Your task to perform on an android device: Do I have any events tomorrow? Image 0: 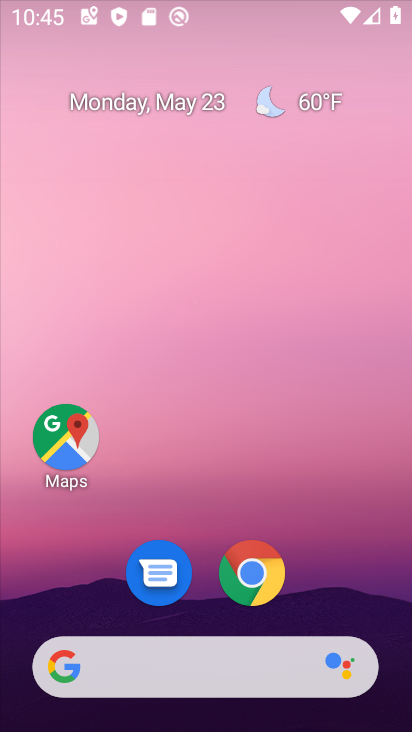
Step 0: drag from (340, 501) to (240, 17)
Your task to perform on an android device: Do I have any events tomorrow? Image 1: 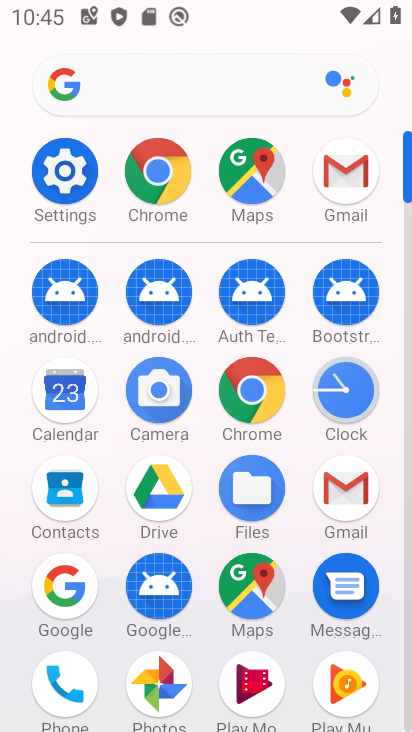
Step 1: drag from (34, 508) to (40, 155)
Your task to perform on an android device: Do I have any events tomorrow? Image 2: 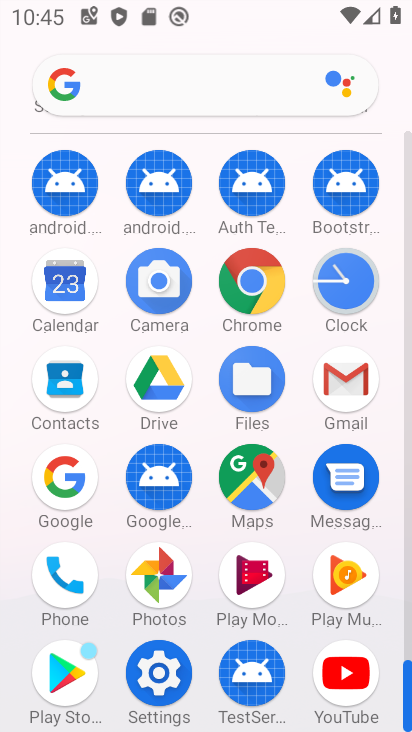
Step 2: drag from (32, 507) to (27, 302)
Your task to perform on an android device: Do I have any events tomorrow? Image 3: 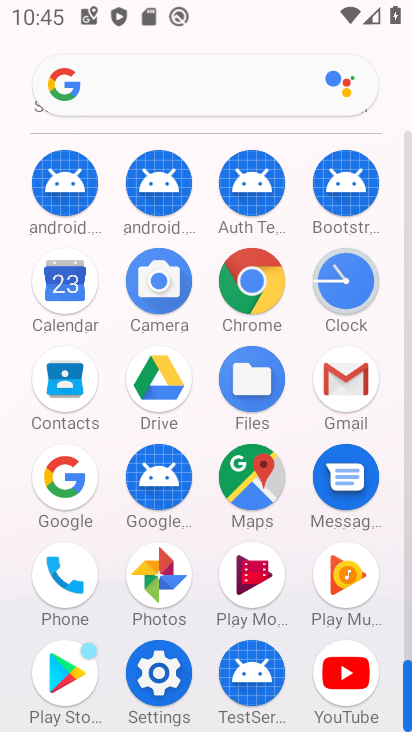
Step 3: click (69, 281)
Your task to perform on an android device: Do I have any events tomorrow? Image 4: 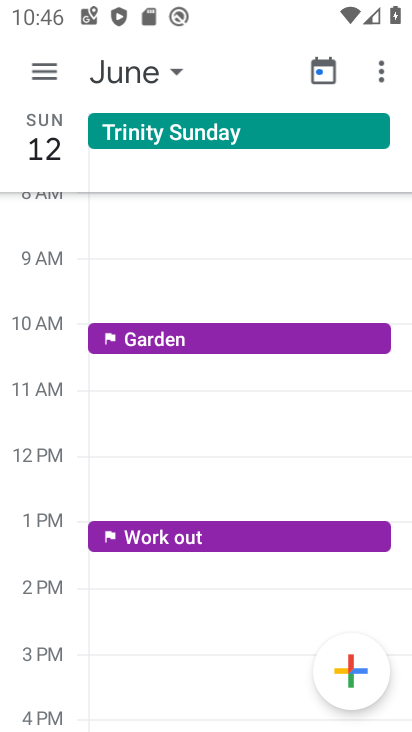
Step 4: drag from (362, 160) to (45, 132)
Your task to perform on an android device: Do I have any events tomorrow? Image 5: 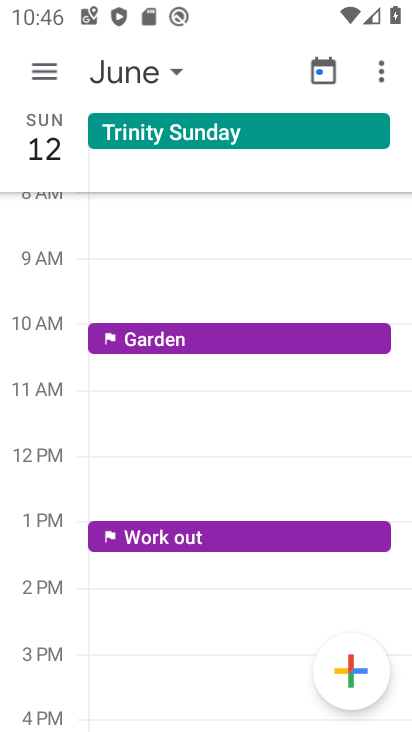
Step 5: click (323, 70)
Your task to perform on an android device: Do I have any events tomorrow? Image 6: 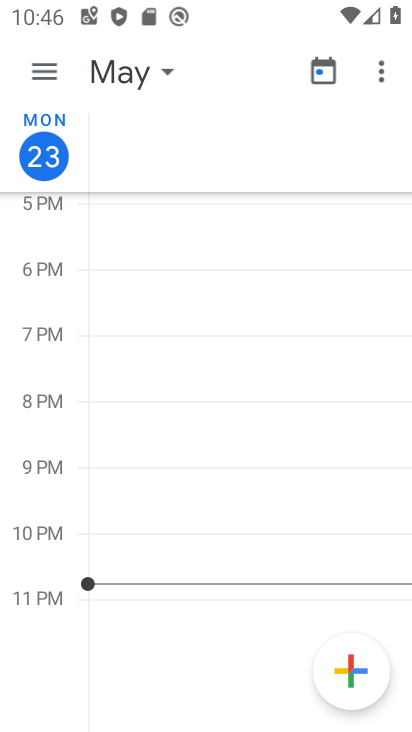
Step 6: task complete